Your task to perform on an android device: Open Chrome and go to settings Image 0: 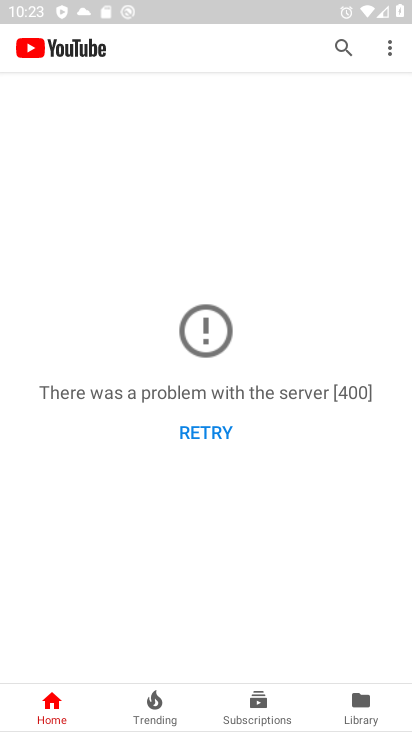
Step 0: press home button
Your task to perform on an android device: Open Chrome and go to settings Image 1: 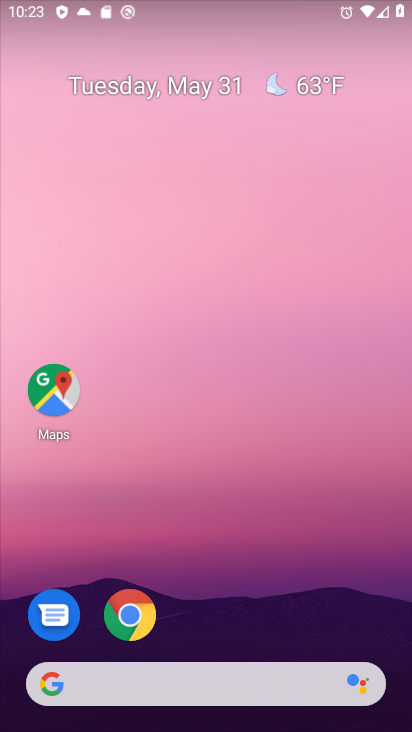
Step 1: click (121, 626)
Your task to perform on an android device: Open Chrome and go to settings Image 2: 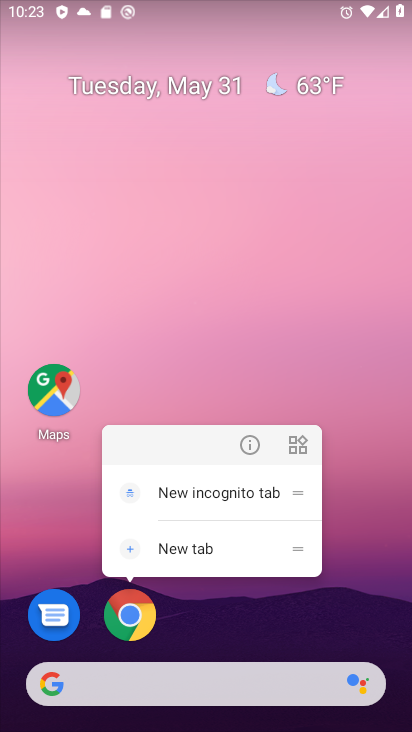
Step 2: click (121, 625)
Your task to perform on an android device: Open Chrome and go to settings Image 3: 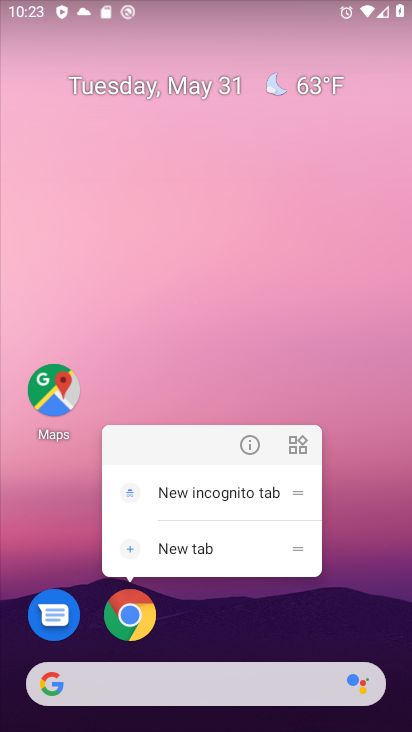
Step 3: click (136, 610)
Your task to perform on an android device: Open Chrome and go to settings Image 4: 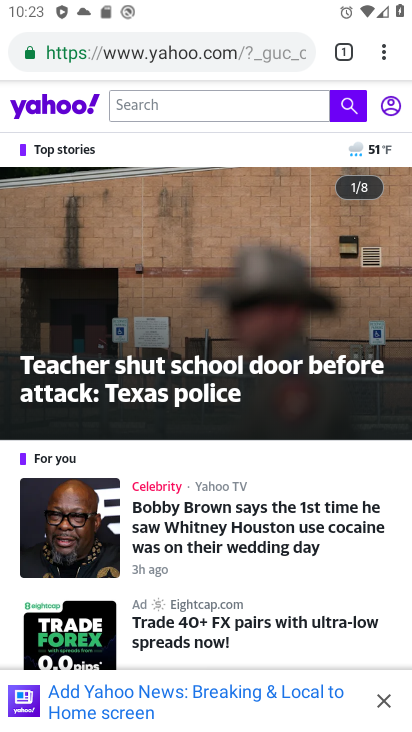
Step 4: task complete